Your task to perform on an android device: turn vacation reply on in the gmail app Image 0: 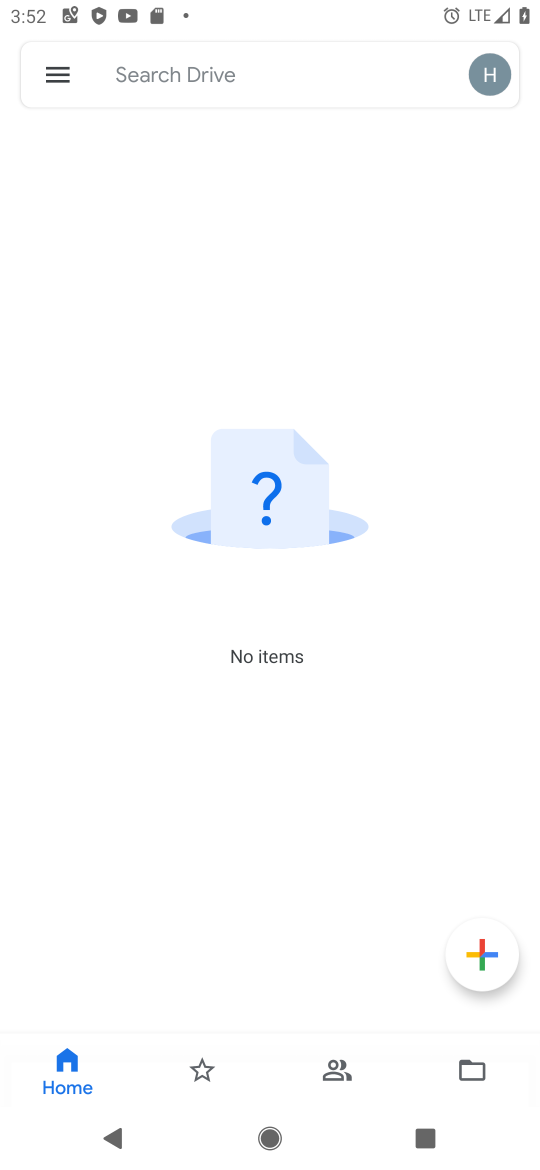
Step 0: press home button
Your task to perform on an android device: turn vacation reply on in the gmail app Image 1: 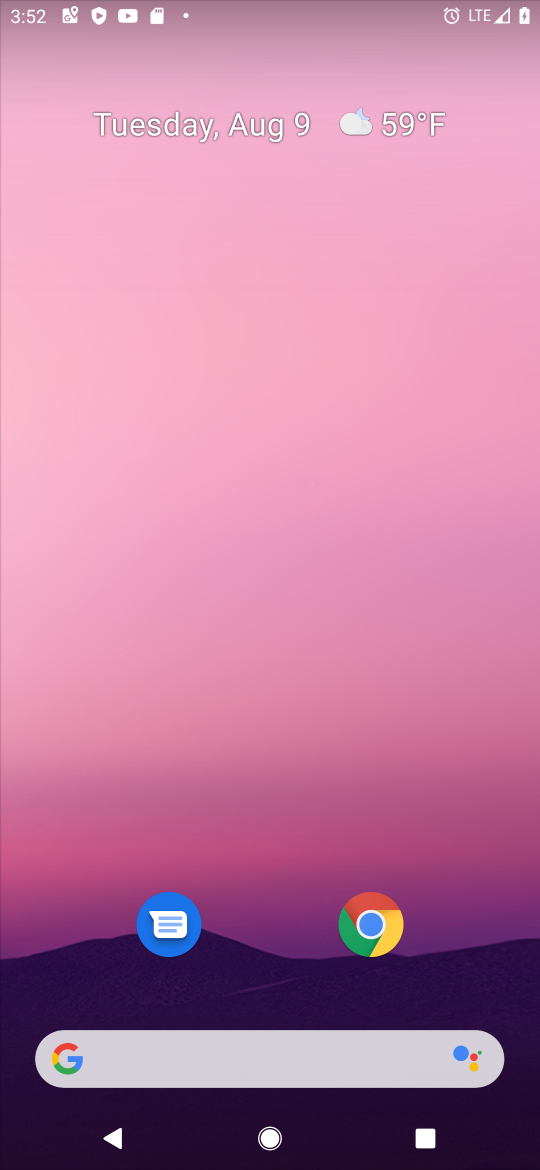
Step 1: drag from (265, 958) to (275, 10)
Your task to perform on an android device: turn vacation reply on in the gmail app Image 2: 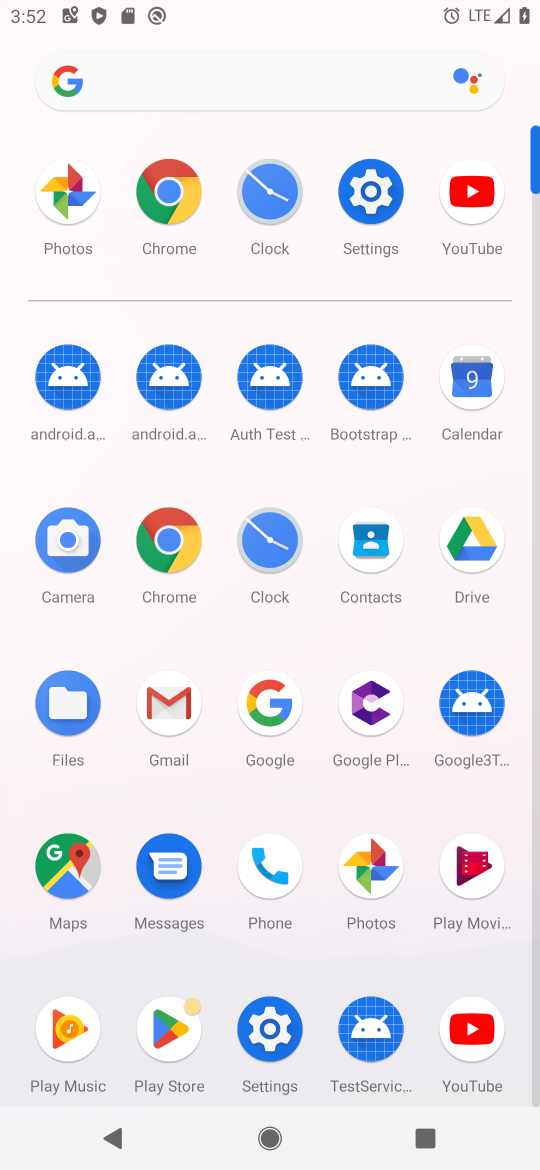
Step 2: click (171, 691)
Your task to perform on an android device: turn vacation reply on in the gmail app Image 3: 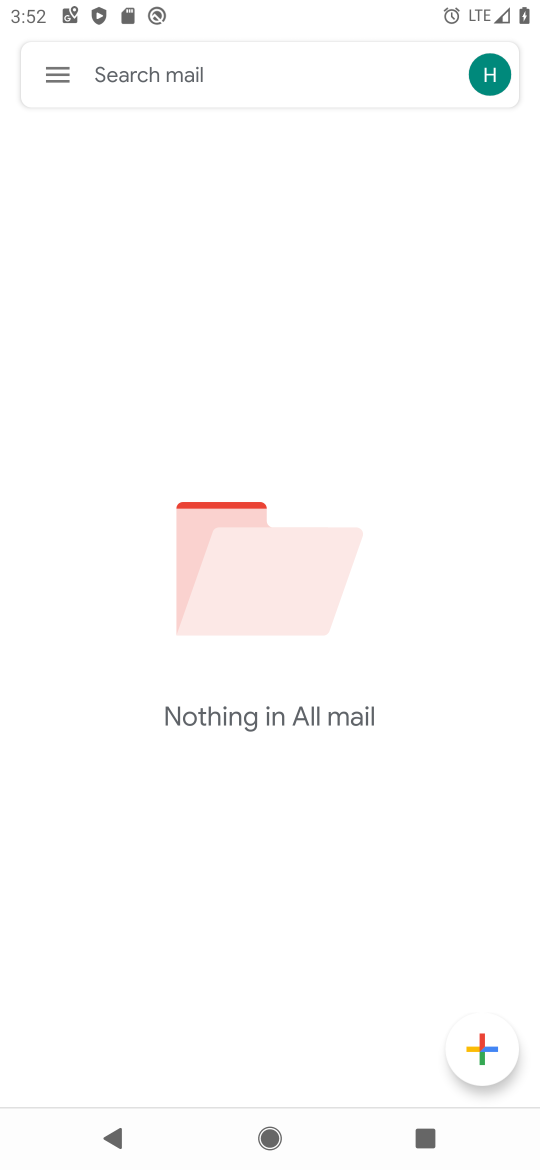
Step 3: click (59, 72)
Your task to perform on an android device: turn vacation reply on in the gmail app Image 4: 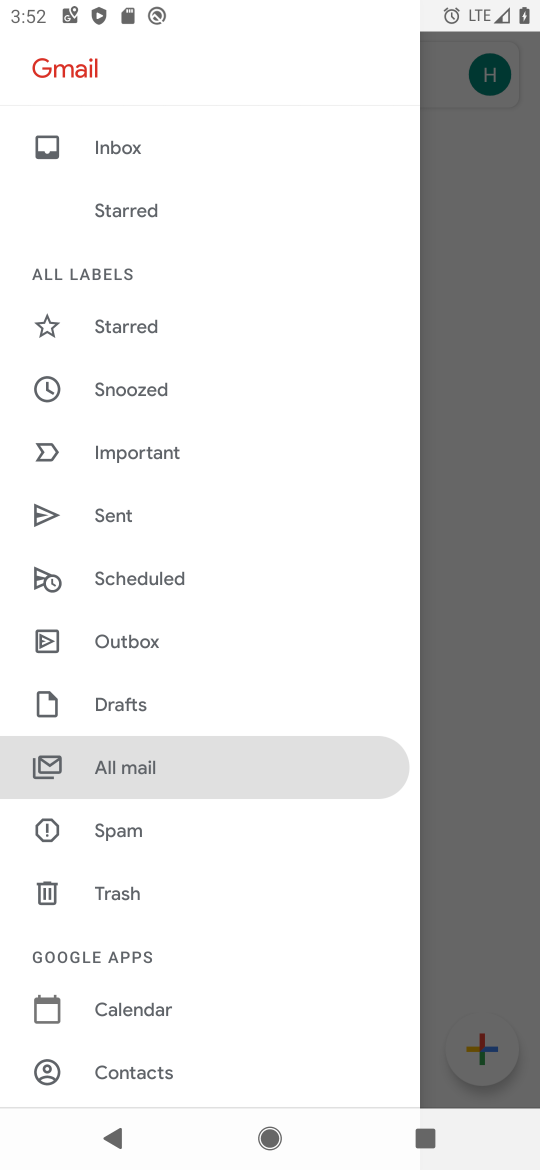
Step 4: drag from (185, 845) to (187, 316)
Your task to perform on an android device: turn vacation reply on in the gmail app Image 5: 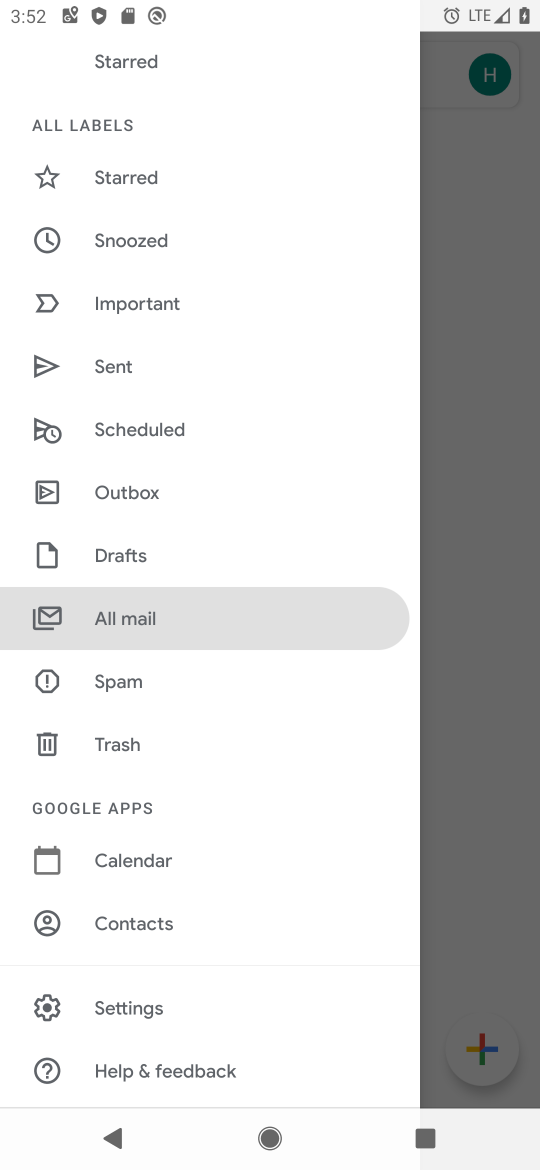
Step 5: click (139, 1008)
Your task to perform on an android device: turn vacation reply on in the gmail app Image 6: 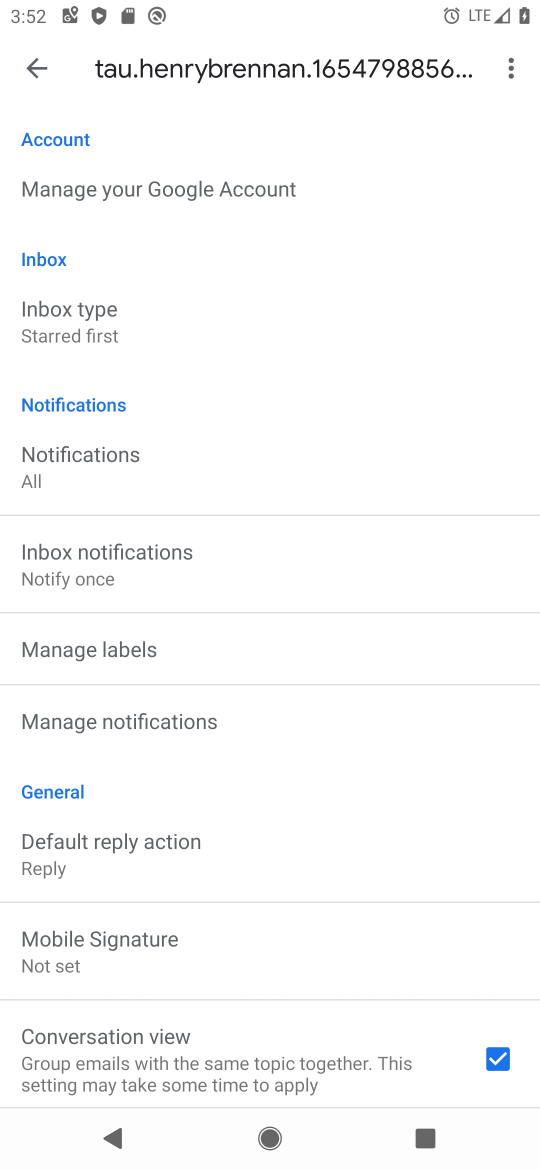
Step 6: drag from (278, 846) to (311, 9)
Your task to perform on an android device: turn vacation reply on in the gmail app Image 7: 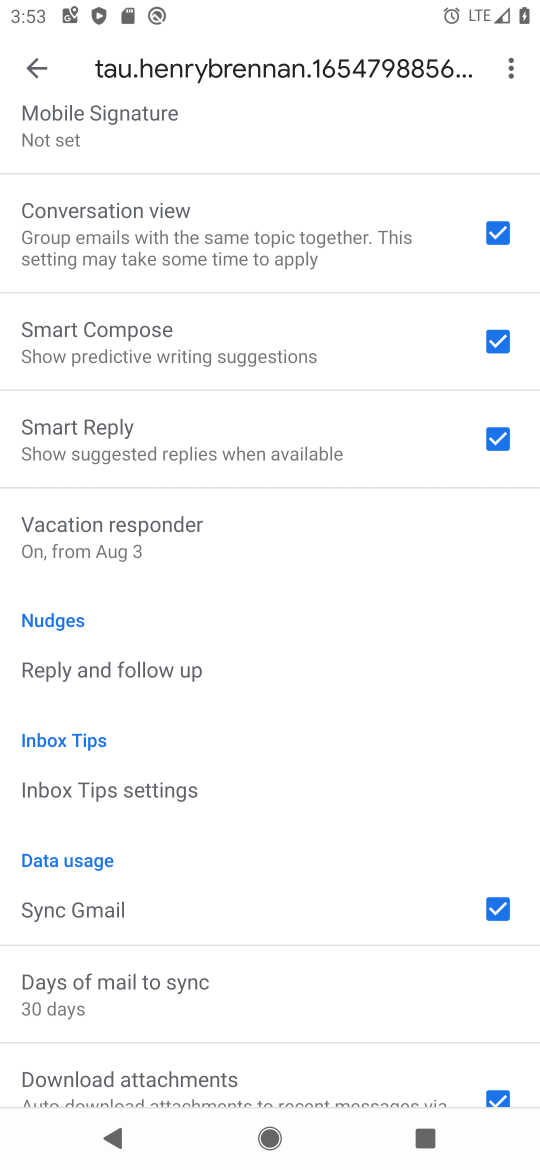
Step 7: click (281, 531)
Your task to perform on an android device: turn vacation reply on in the gmail app Image 8: 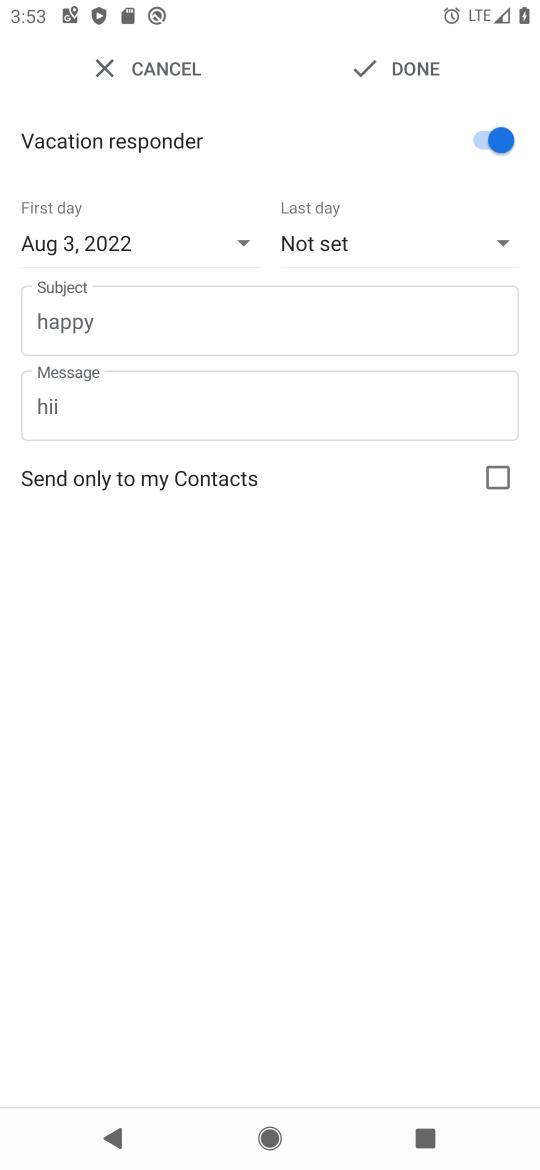
Step 8: task complete